Your task to perform on an android device: Go to sound settings Image 0: 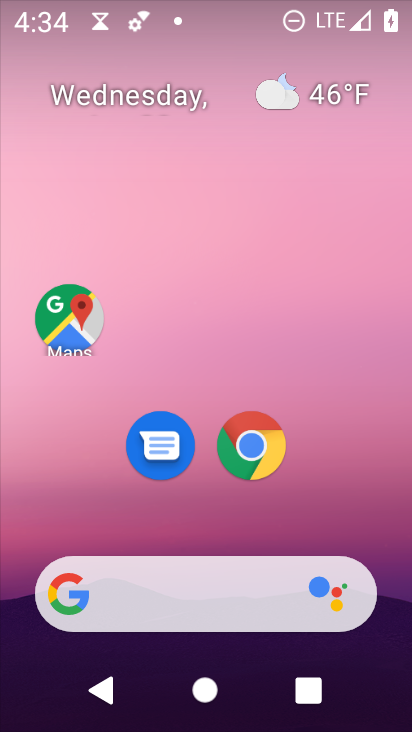
Step 0: drag from (223, 396) to (231, 60)
Your task to perform on an android device: Go to sound settings Image 1: 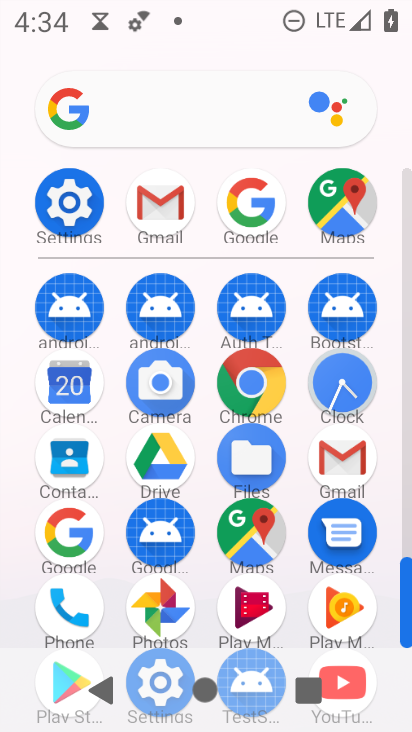
Step 1: click (72, 198)
Your task to perform on an android device: Go to sound settings Image 2: 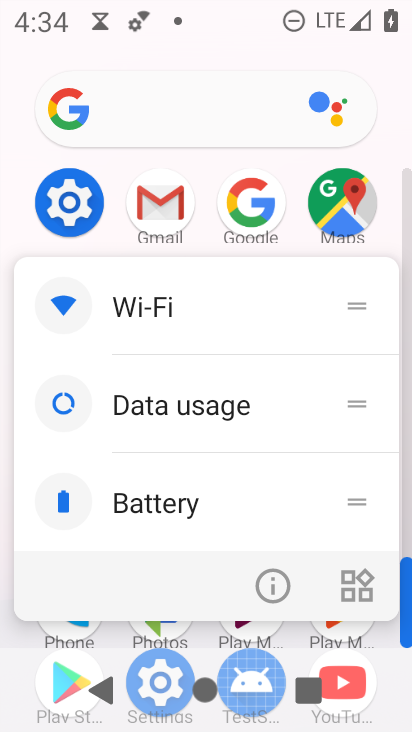
Step 2: click (72, 198)
Your task to perform on an android device: Go to sound settings Image 3: 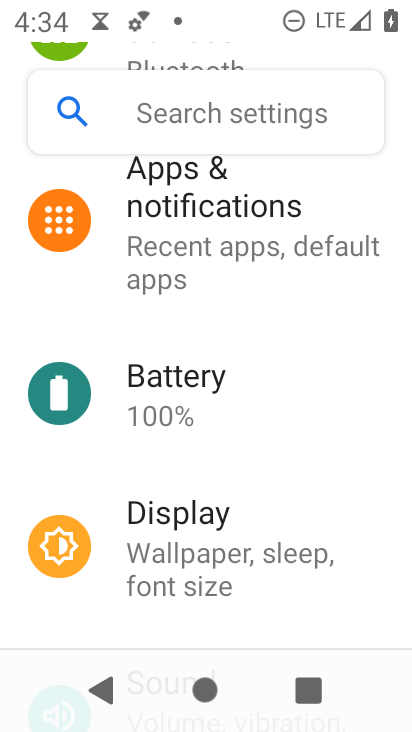
Step 3: drag from (255, 504) to (281, 341)
Your task to perform on an android device: Go to sound settings Image 4: 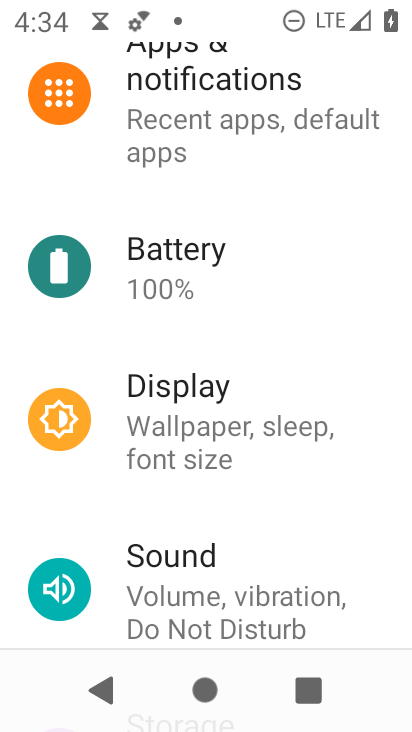
Step 4: drag from (271, 524) to (296, 311)
Your task to perform on an android device: Go to sound settings Image 5: 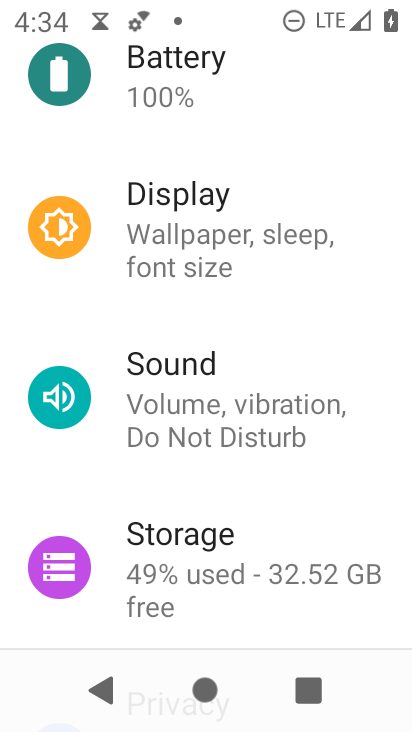
Step 5: click (177, 366)
Your task to perform on an android device: Go to sound settings Image 6: 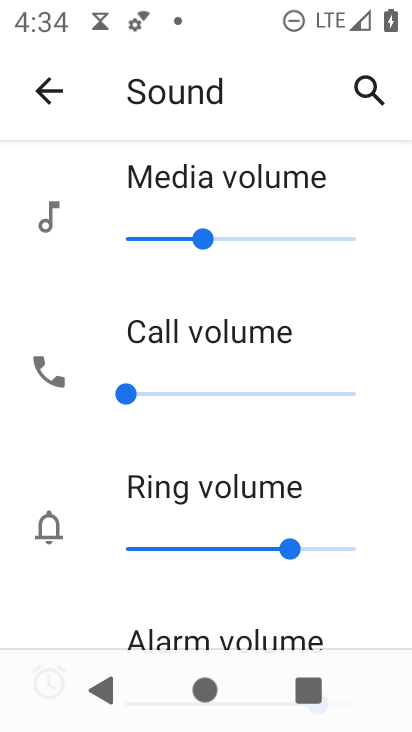
Step 6: task complete